Your task to perform on an android device: Go to Maps Image 0: 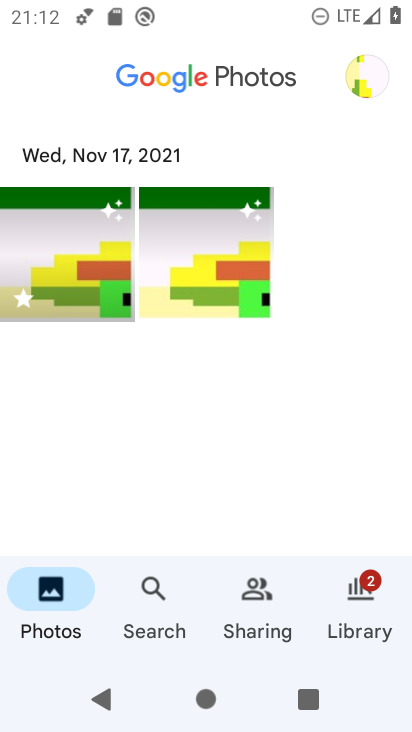
Step 0: press home button
Your task to perform on an android device: Go to Maps Image 1: 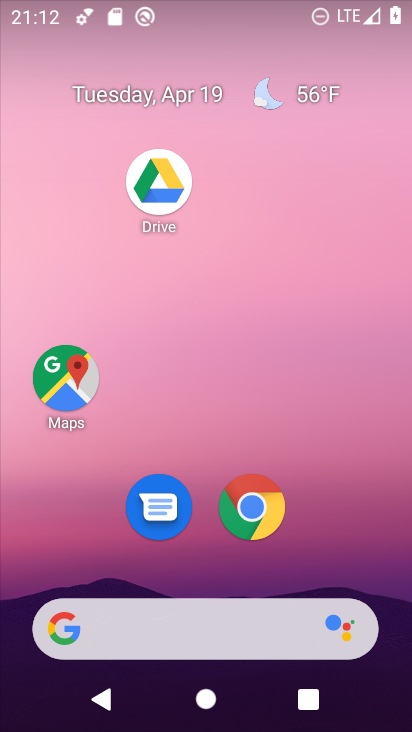
Step 1: click (69, 385)
Your task to perform on an android device: Go to Maps Image 2: 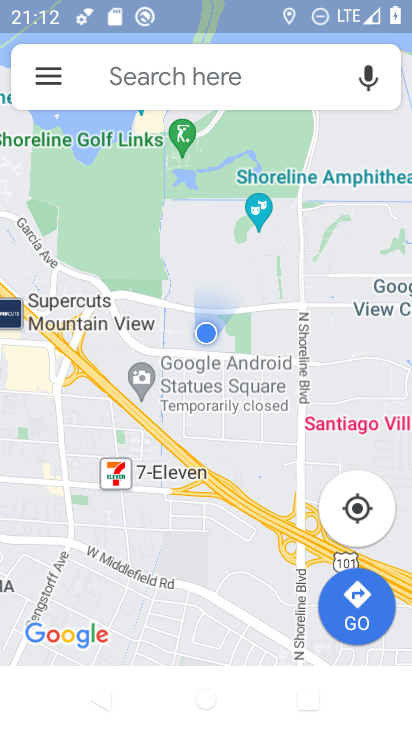
Step 2: task complete